Your task to perform on an android device: toggle airplane mode Image 0: 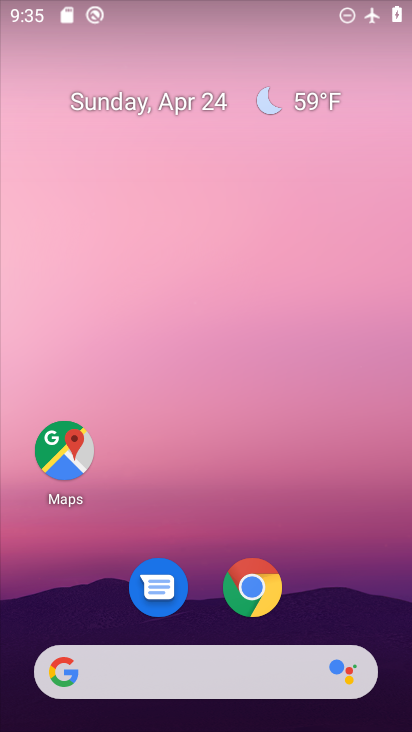
Step 0: drag from (201, 502) to (183, 47)
Your task to perform on an android device: toggle airplane mode Image 1: 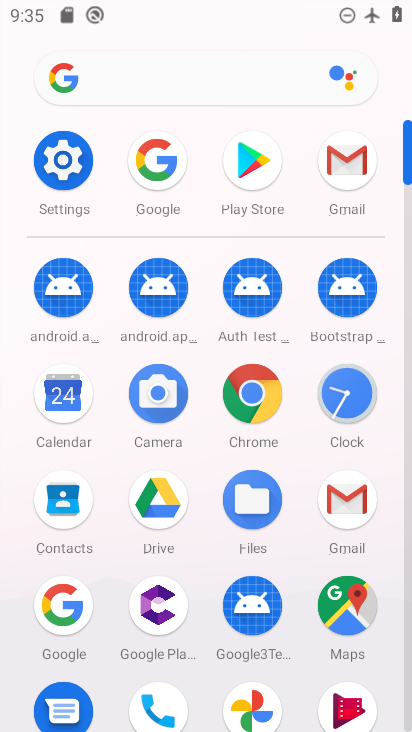
Step 1: click (60, 162)
Your task to perform on an android device: toggle airplane mode Image 2: 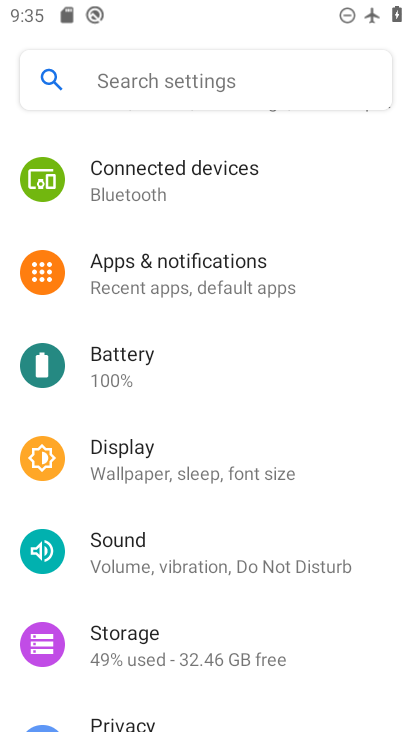
Step 2: click (180, 317)
Your task to perform on an android device: toggle airplane mode Image 3: 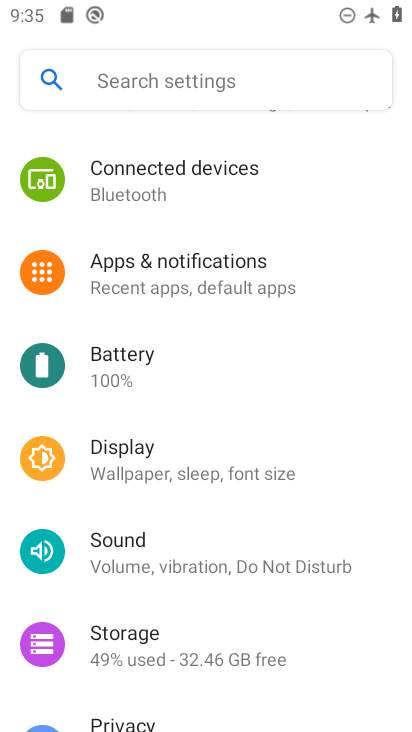
Step 3: drag from (255, 218) to (292, 407)
Your task to perform on an android device: toggle airplane mode Image 4: 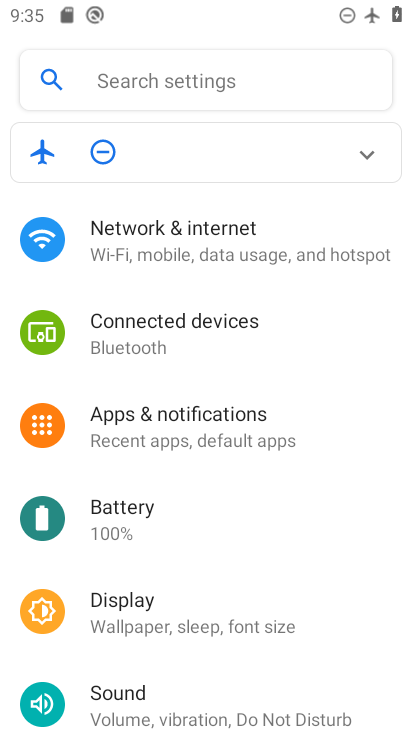
Step 4: click (197, 231)
Your task to perform on an android device: toggle airplane mode Image 5: 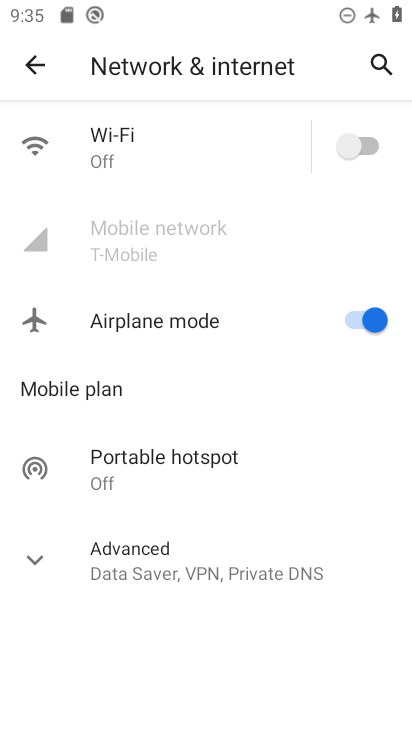
Step 5: click (371, 326)
Your task to perform on an android device: toggle airplane mode Image 6: 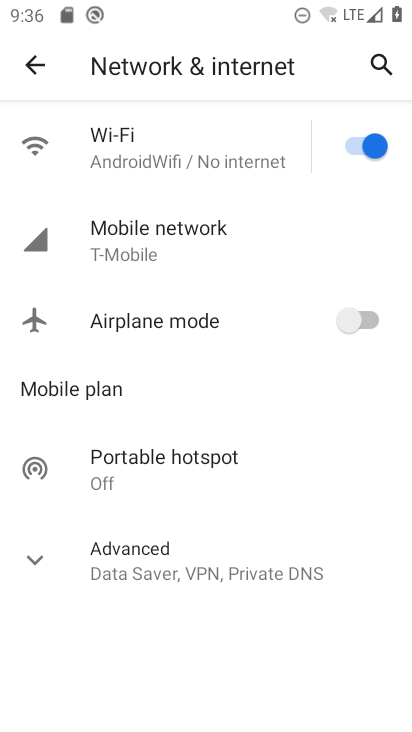
Step 6: task complete